Your task to perform on an android device: turn off improve location accuracy Image 0: 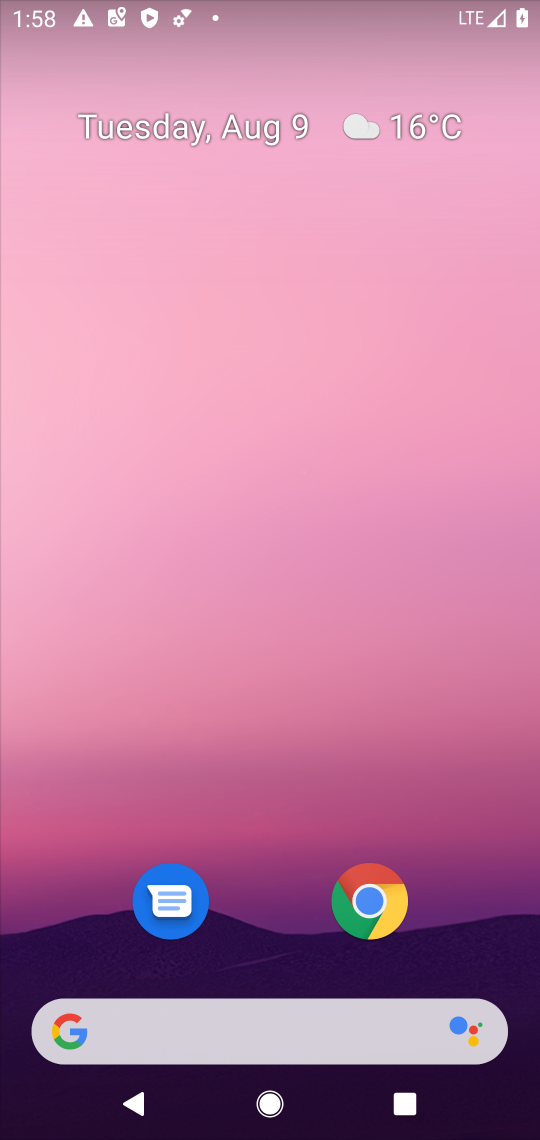
Step 0: drag from (507, 955) to (426, 240)
Your task to perform on an android device: turn off improve location accuracy Image 1: 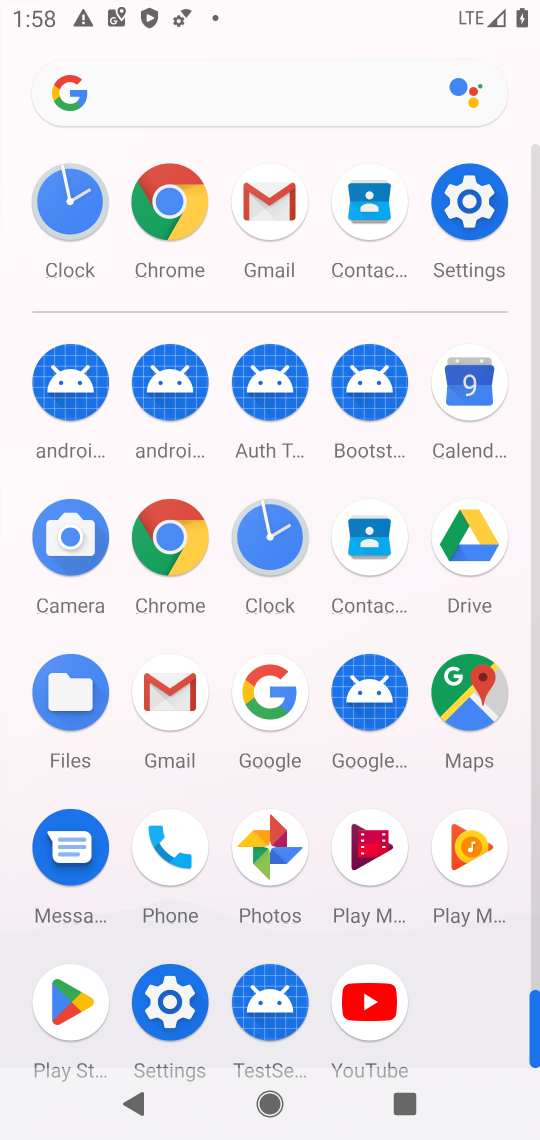
Step 1: click (173, 1001)
Your task to perform on an android device: turn off improve location accuracy Image 2: 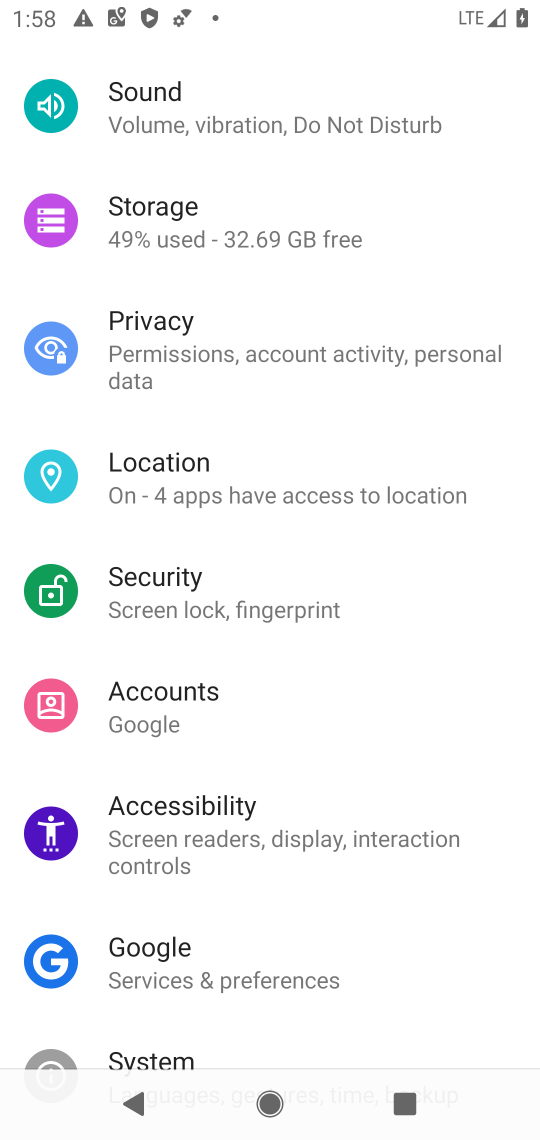
Step 2: click (184, 486)
Your task to perform on an android device: turn off improve location accuracy Image 3: 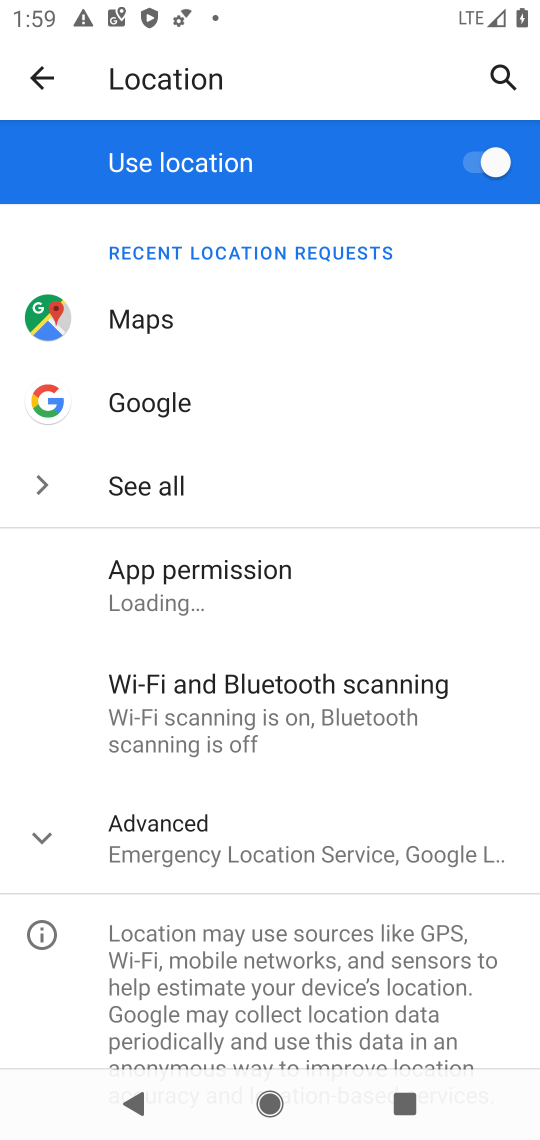
Step 3: click (90, 854)
Your task to perform on an android device: turn off improve location accuracy Image 4: 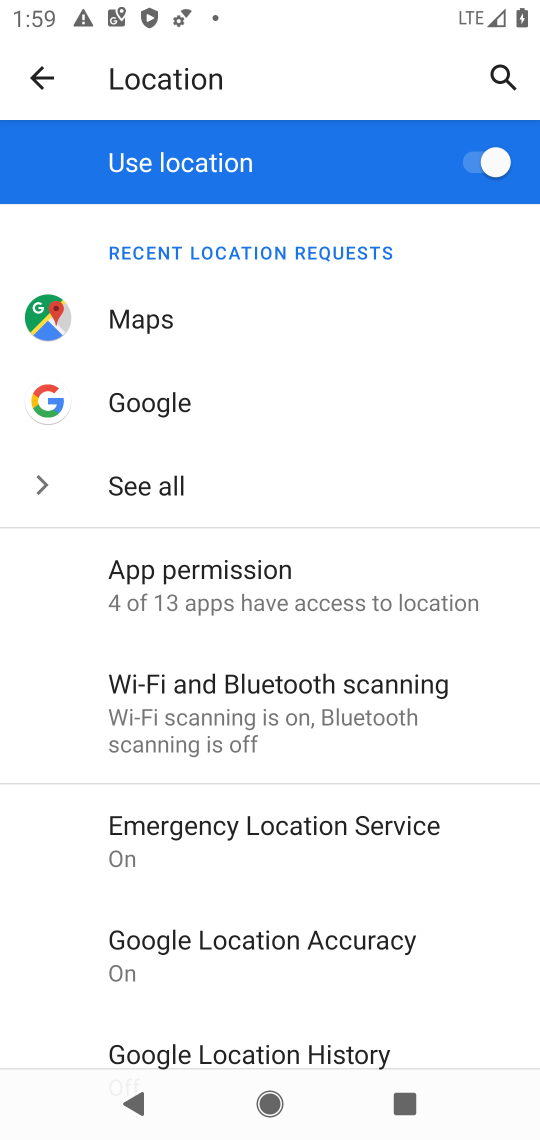
Step 4: click (259, 936)
Your task to perform on an android device: turn off improve location accuracy Image 5: 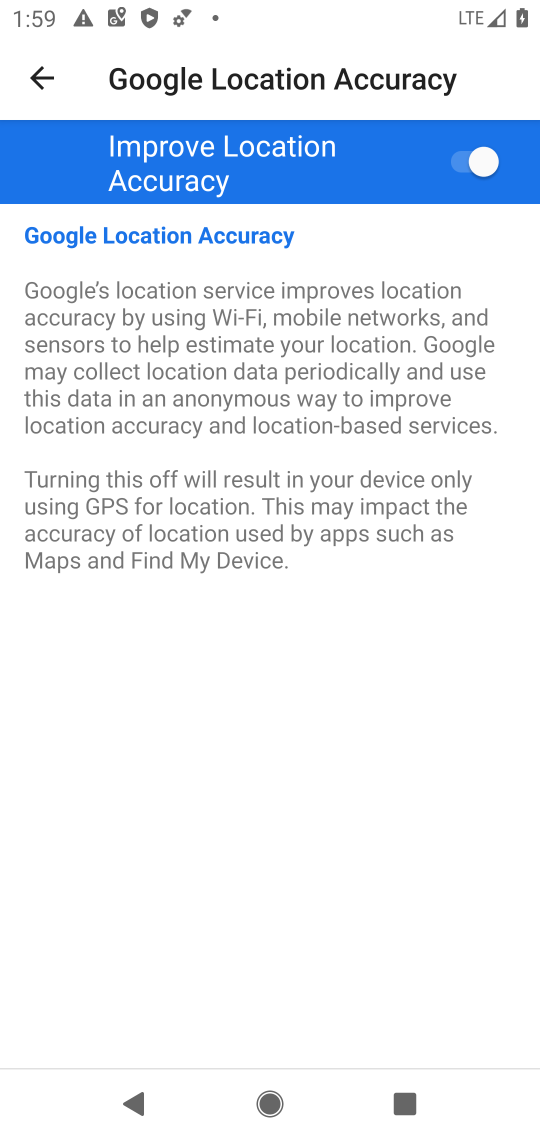
Step 5: click (456, 164)
Your task to perform on an android device: turn off improve location accuracy Image 6: 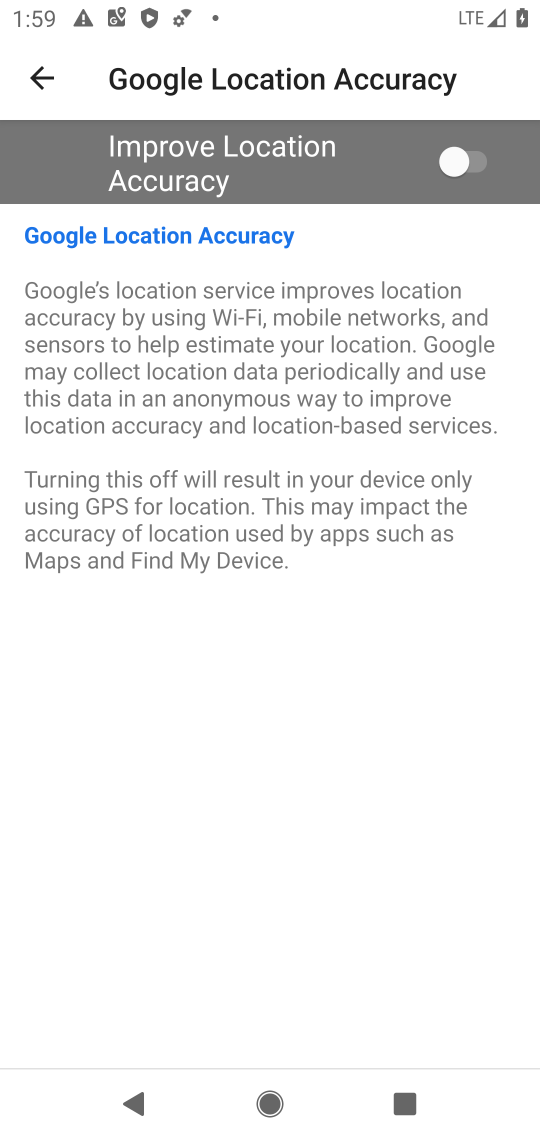
Step 6: task complete